Your task to perform on an android device: Show me the best 1080p monitor on Target.com Image 0: 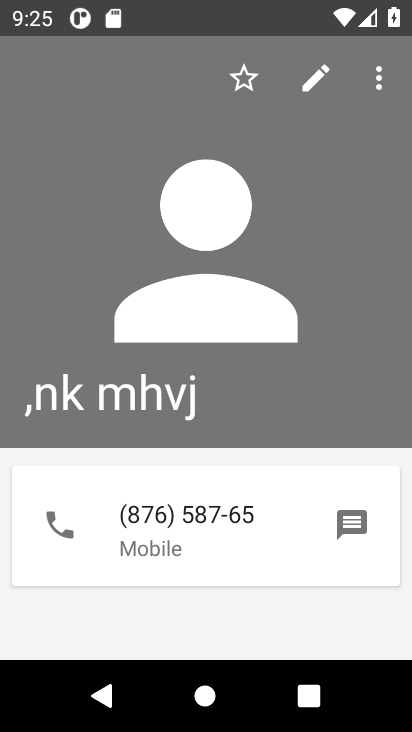
Step 0: click (260, 82)
Your task to perform on an android device: Show me the best 1080p monitor on Target.com Image 1: 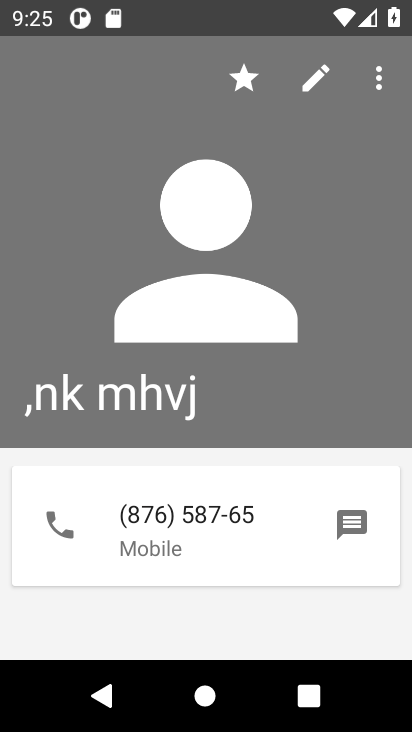
Step 1: task complete